Your task to perform on an android device: Open the map Image 0: 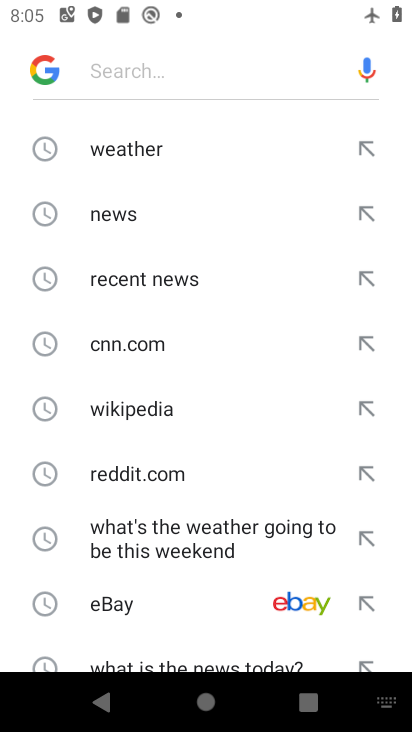
Step 0: press home button
Your task to perform on an android device: Open the map Image 1: 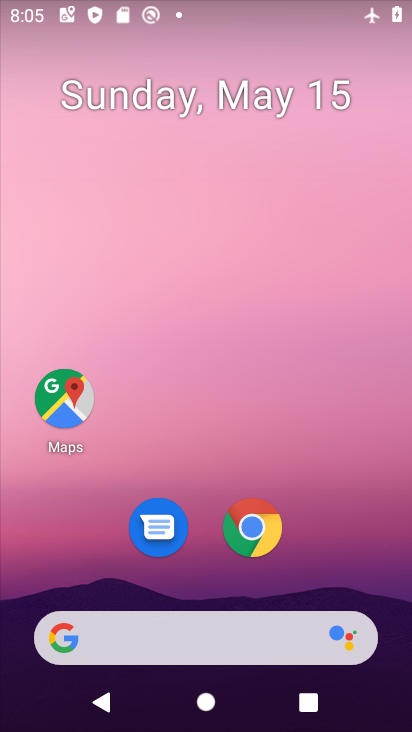
Step 1: click (78, 405)
Your task to perform on an android device: Open the map Image 2: 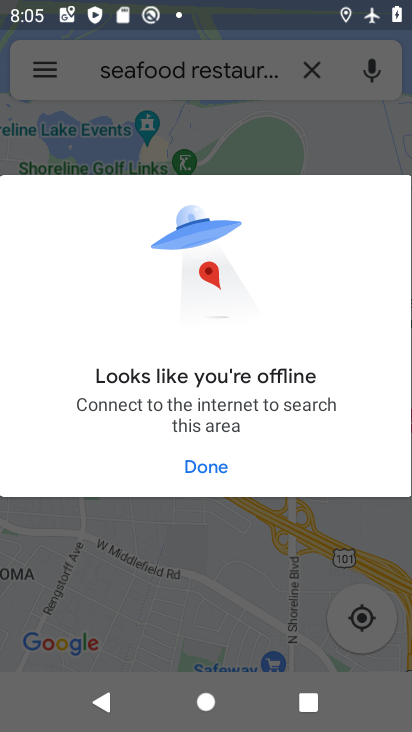
Step 2: task complete